Your task to perform on an android device: open app "Paramount+ | Peak Streaming" Image 0: 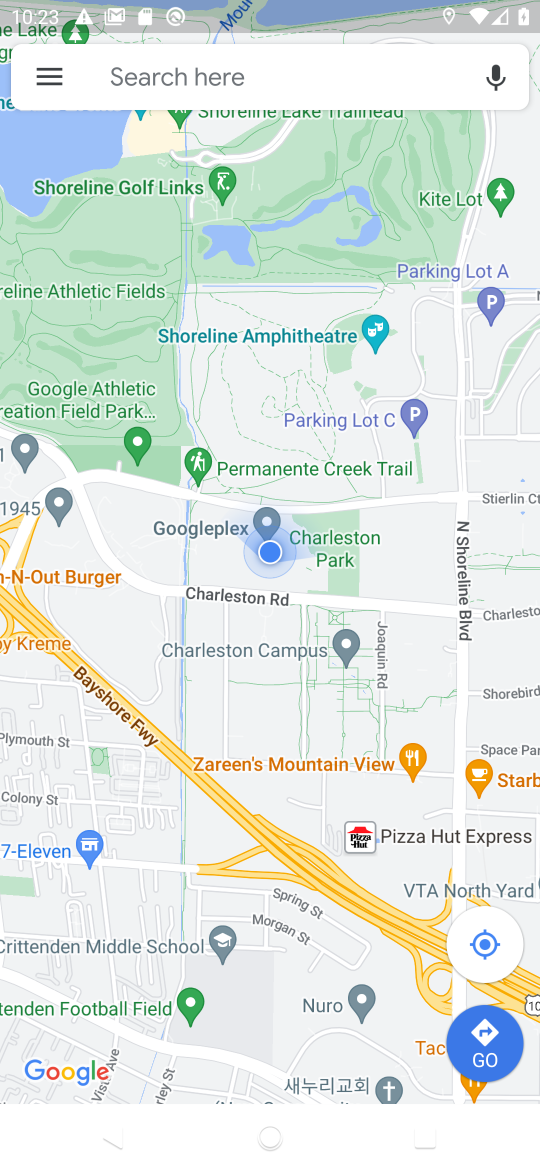
Step 0: press home button
Your task to perform on an android device: open app "Paramount+ | Peak Streaming" Image 1: 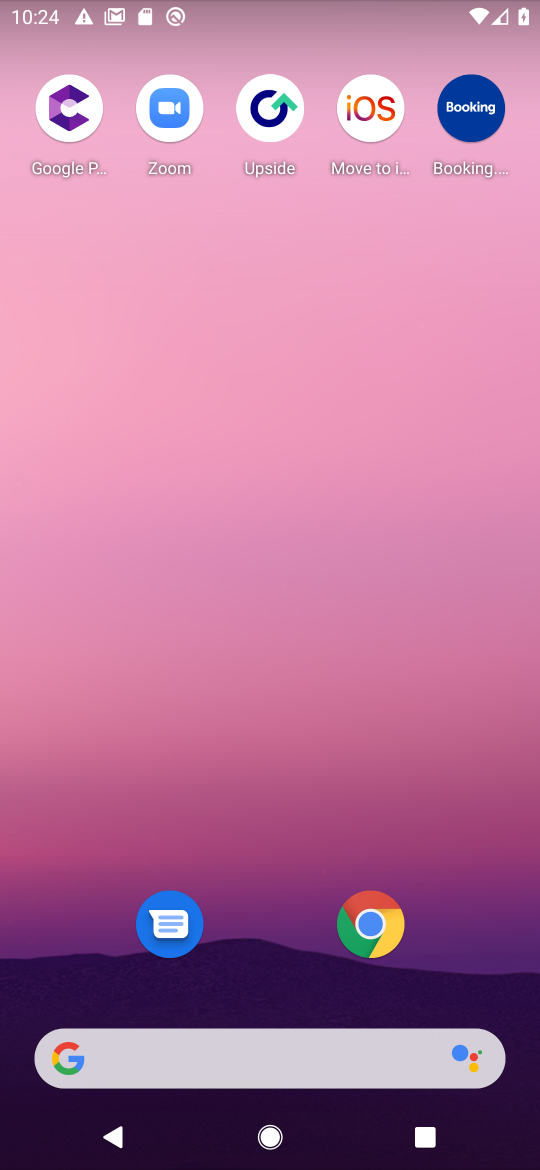
Step 1: drag from (206, 1083) to (172, 312)
Your task to perform on an android device: open app "Paramount+ | Peak Streaming" Image 2: 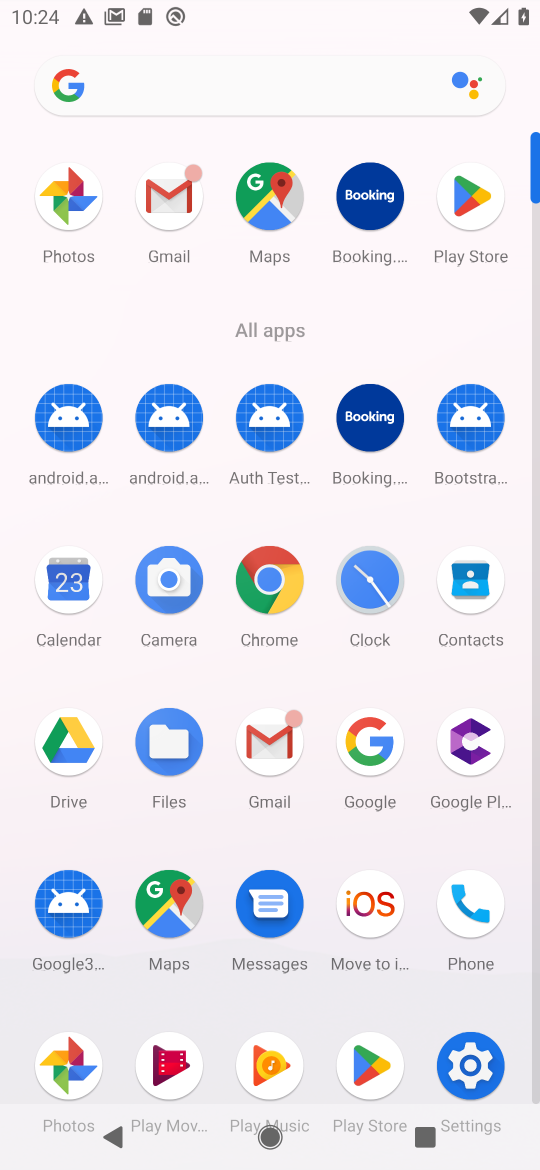
Step 2: click (463, 180)
Your task to perform on an android device: open app "Paramount+ | Peak Streaming" Image 3: 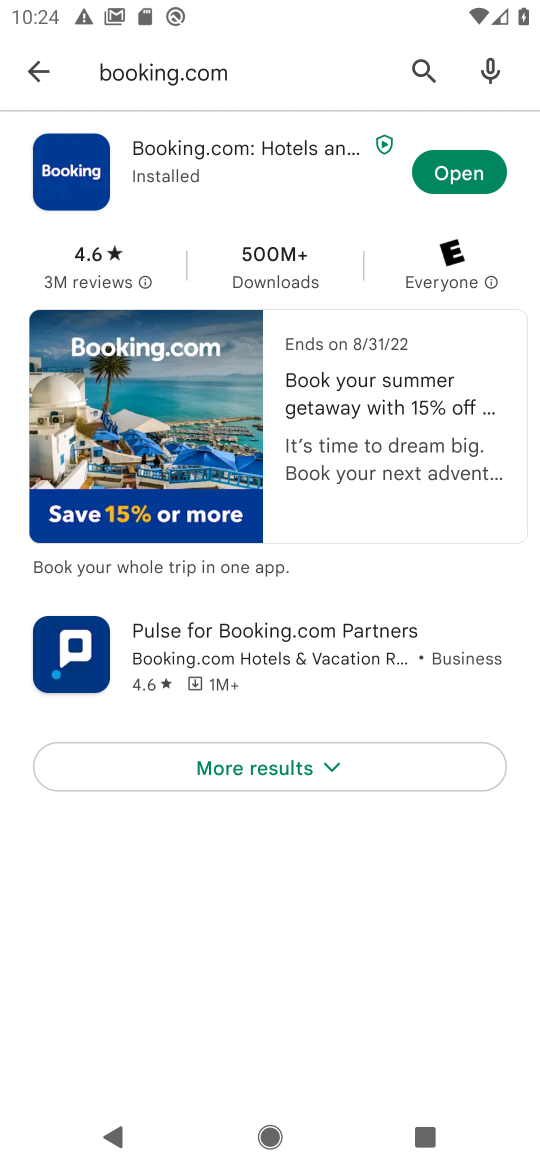
Step 3: click (440, 65)
Your task to perform on an android device: open app "Paramount+ | Peak Streaming" Image 4: 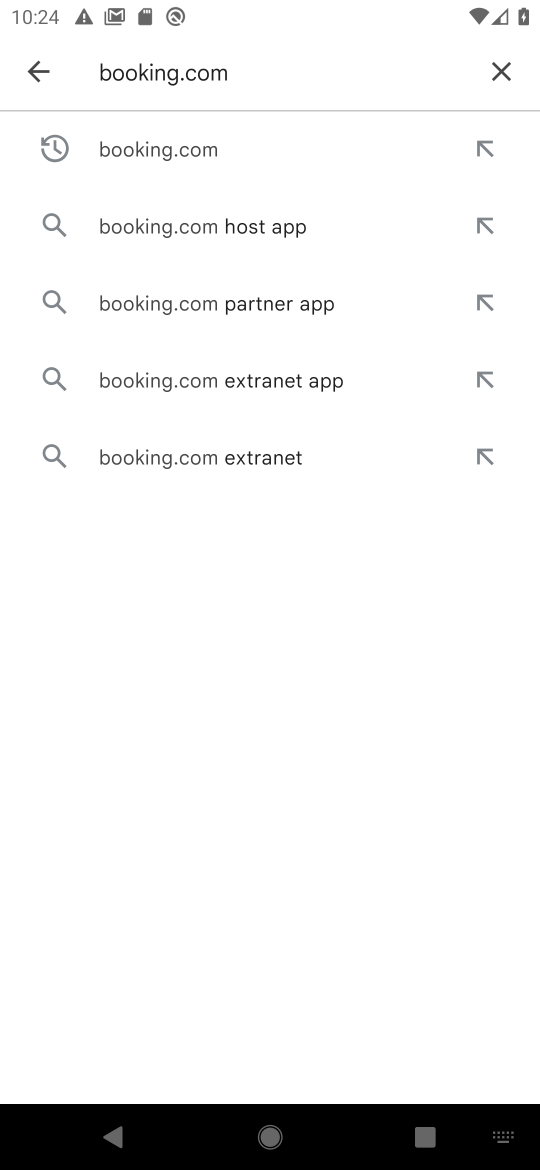
Step 4: click (499, 72)
Your task to perform on an android device: open app "Paramount+ | Peak Streaming" Image 5: 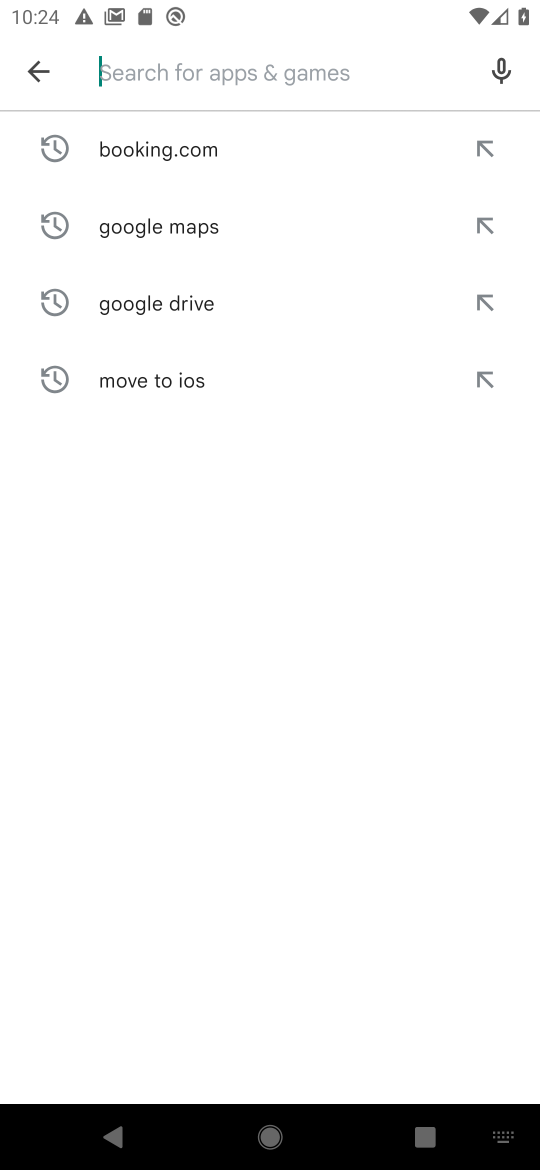
Step 5: type "paramount+"
Your task to perform on an android device: open app "Paramount+ | Peak Streaming" Image 6: 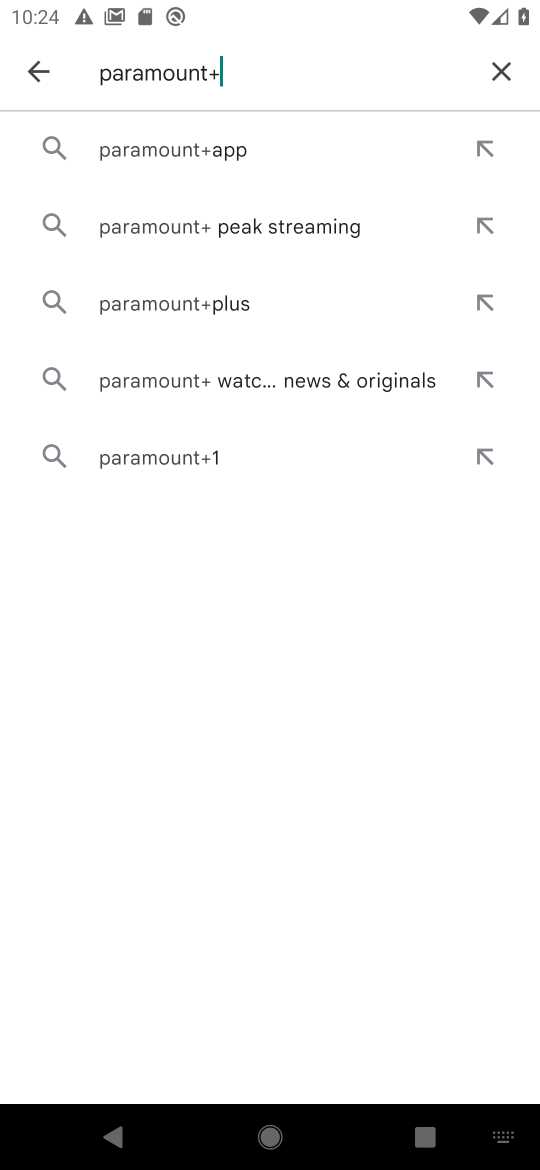
Step 6: click (246, 240)
Your task to perform on an android device: open app "Paramount+ | Peak Streaming" Image 7: 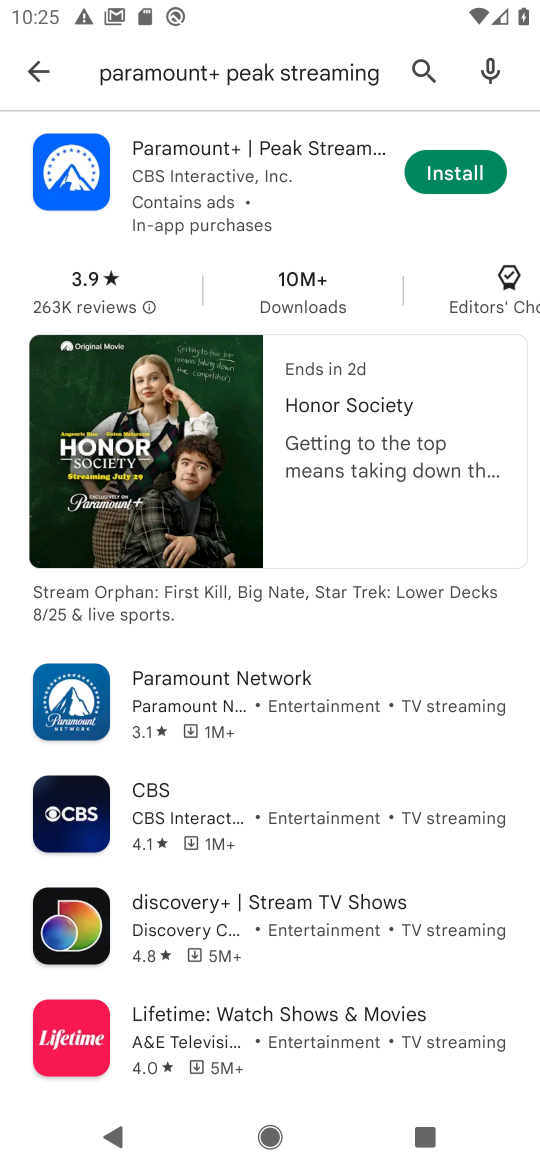
Step 7: task complete